Your task to perform on an android device: turn on the 24-hour format for clock Image 0: 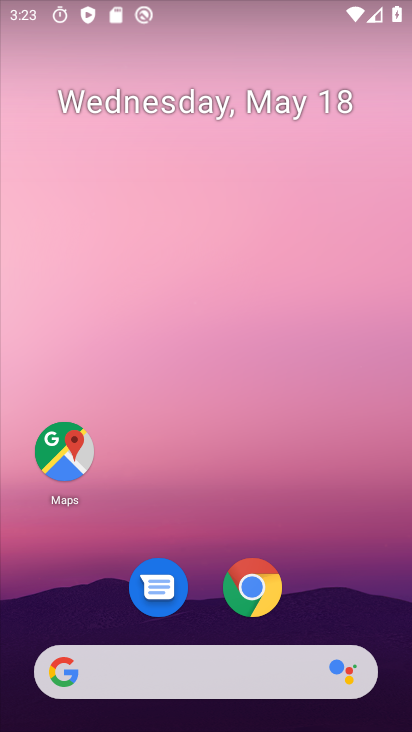
Step 0: drag from (338, 579) to (338, 142)
Your task to perform on an android device: turn on the 24-hour format for clock Image 1: 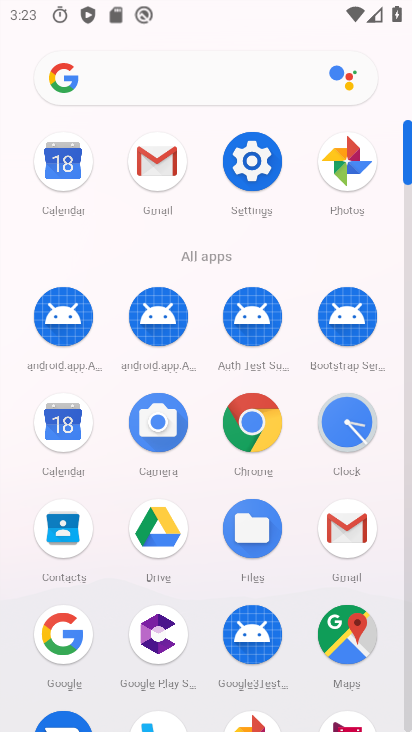
Step 1: click (338, 427)
Your task to perform on an android device: turn on the 24-hour format for clock Image 2: 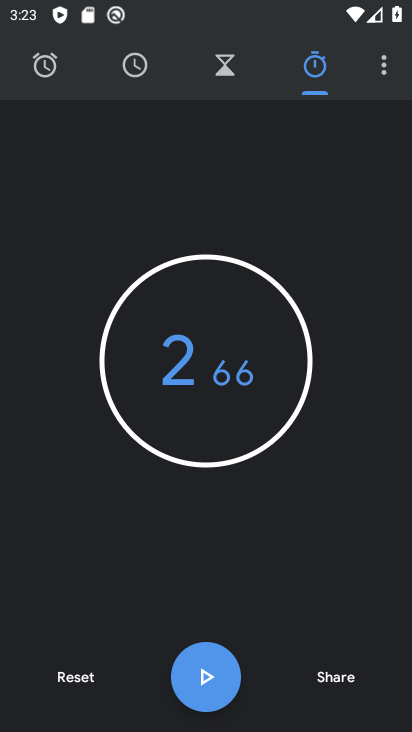
Step 2: drag from (391, 50) to (254, 135)
Your task to perform on an android device: turn on the 24-hour format for clock Image 3: 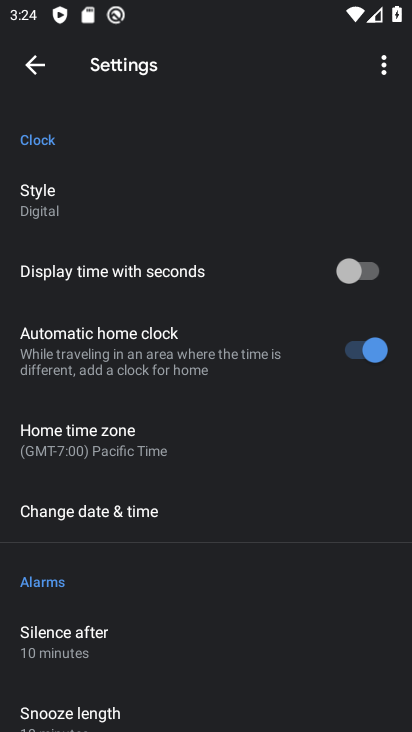
Step 3: drag from (197, 585) to (190, 442)
Your task to perform on an android device: turn on the 24-hour format for clock Image 4: 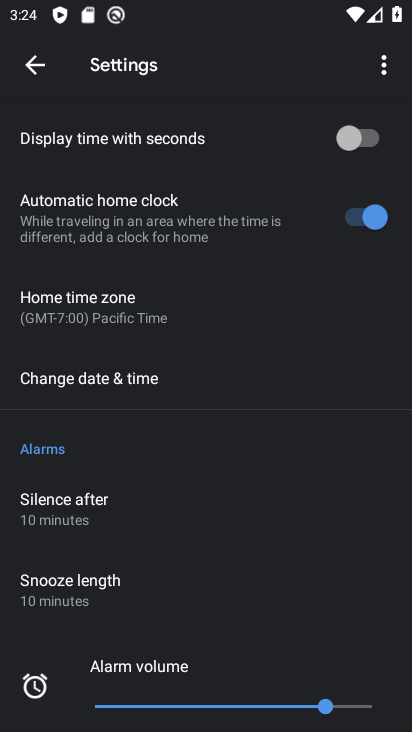
Step 4: click (143, 386)
Your task to perform on an android device: turn on the 24-hour format for clock Image 5: 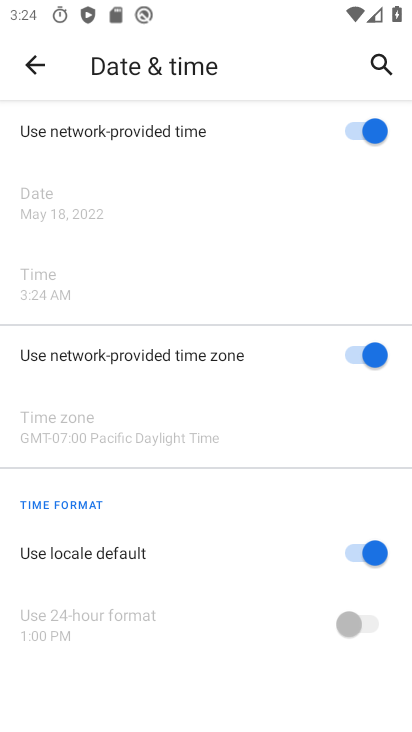
Step 5: click (353, 558)
Your task to perform on an android device: turn on the 24-hour format for clock Image 6: 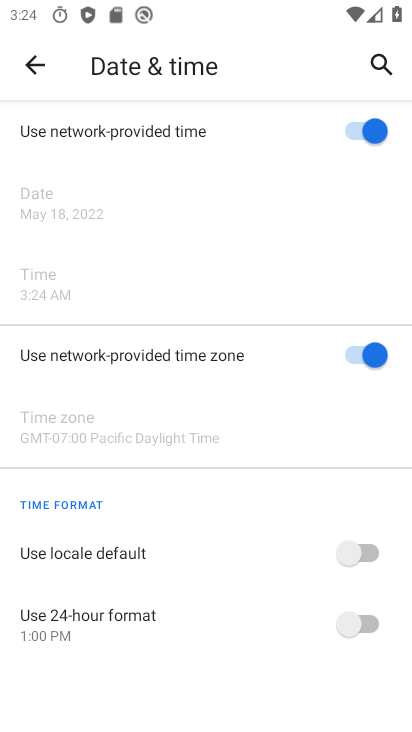
Step 6: click (360, 608)
Your task to perform on an android device: turn on the 24-hour format for clock Image 7: 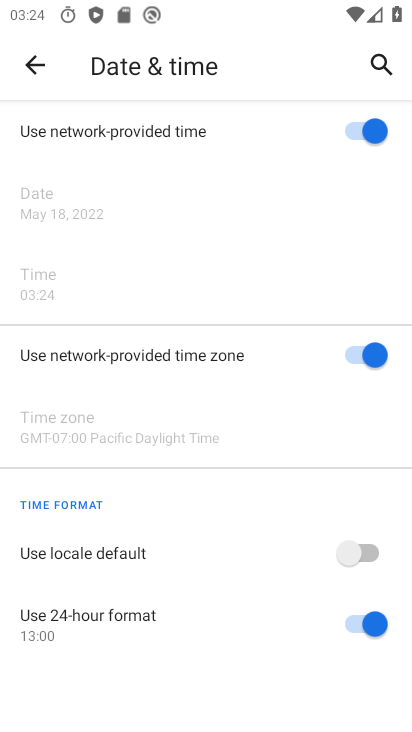
Step 7: task complete